Your task to perform on an android device: find which apps use the phone's location Image 0: 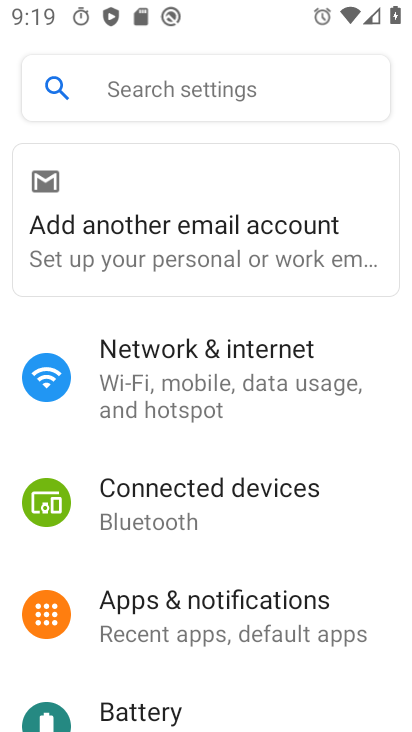
Step 0: drag from (250, 582) to (221, 205)
Your task to perform on an android device: find which apps use the phone's location Image 1: 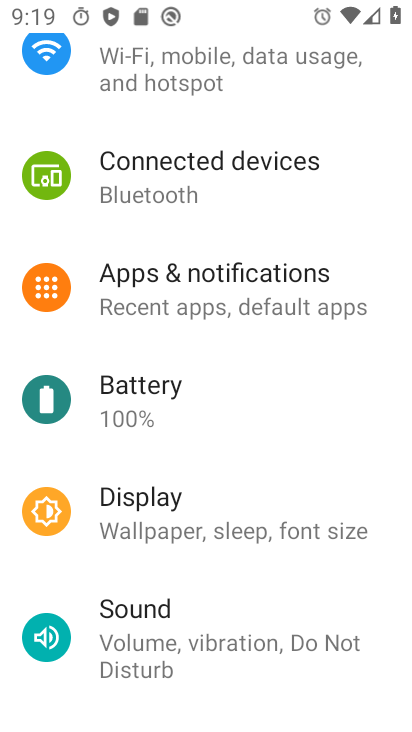
Step 1: drag from (171, 573) to (124, 81)
Your task to perform on an android device: find which apps use the phone's location Image 2: 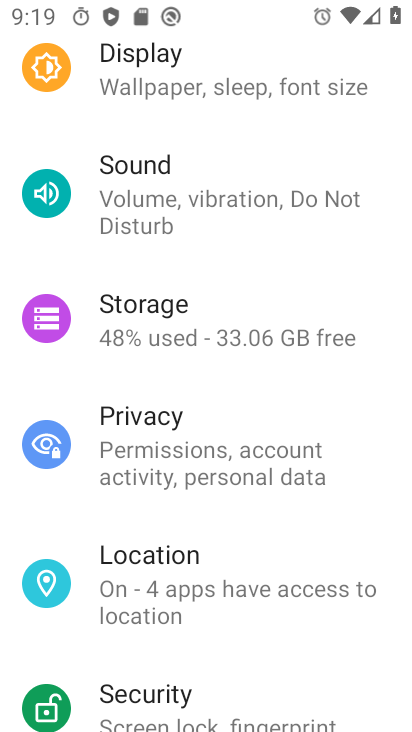
Step 2: drag from (288, 455) to (277, 37)
Your task to perform on an android device: find which apps use the phone's location Image 3: 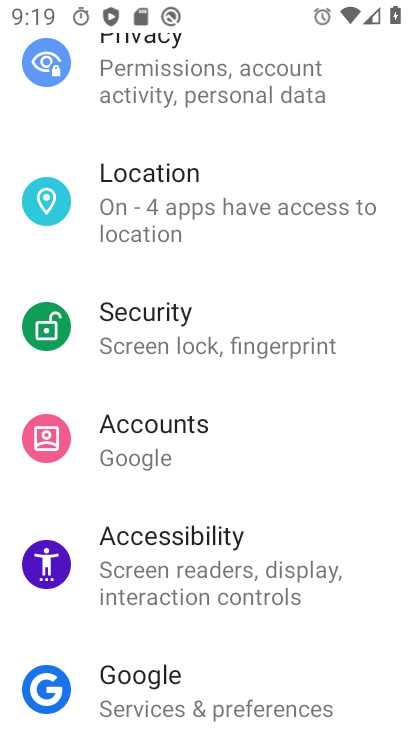
Step 3: click (151, 205)
Your task to perform on an android device: find which apps use the phone's location Image 4: 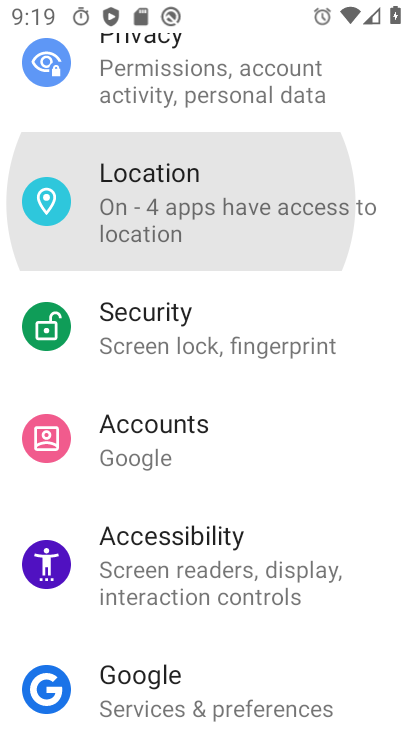
Step 4: click (152, 205)
Your task to perform on an android device: find which apps use the phone's location Image 5: 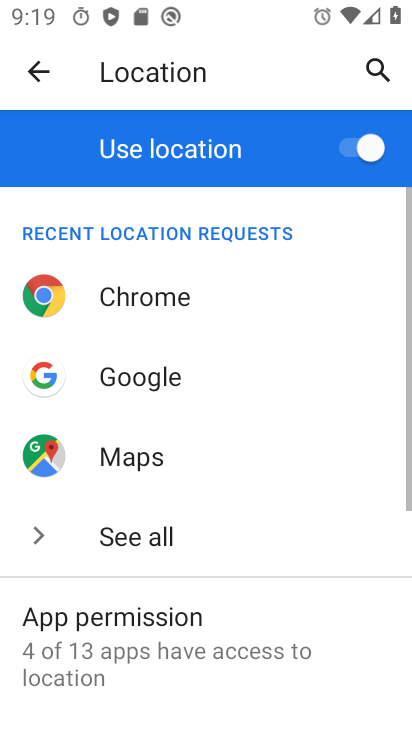
Step 5: drag from (132, 573) to (132, 105)
Your task to perform on an android device: find which apps use the phone's location Image 6: 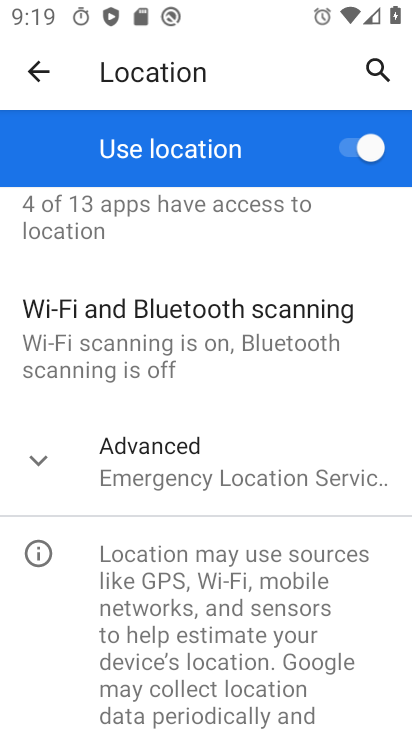
Step 6: drag from (128, 285) to (220, 560)
Your task to perform on an android device: find which apps use the phone's location Image 7: 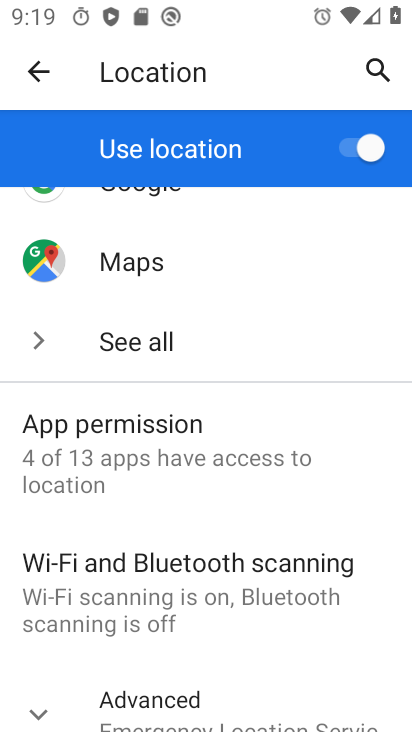
Step 7: click (126, 440)
Your task to perform on an android device: find which apps use the phone's location Image 8: 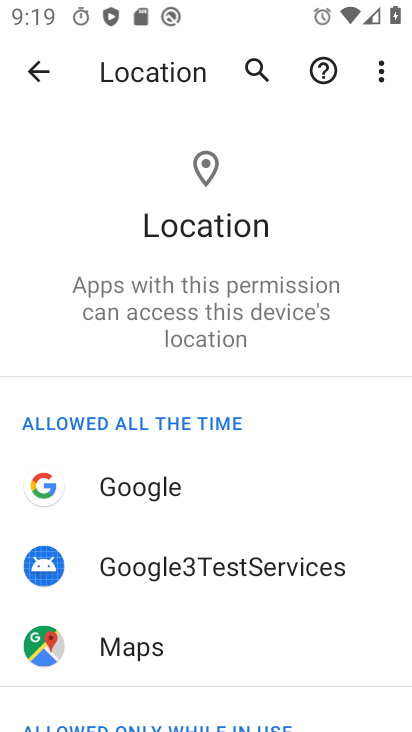
Step 8: task complete